Your task to perform on an android device: turn off javascript in the chrome app Image 0: 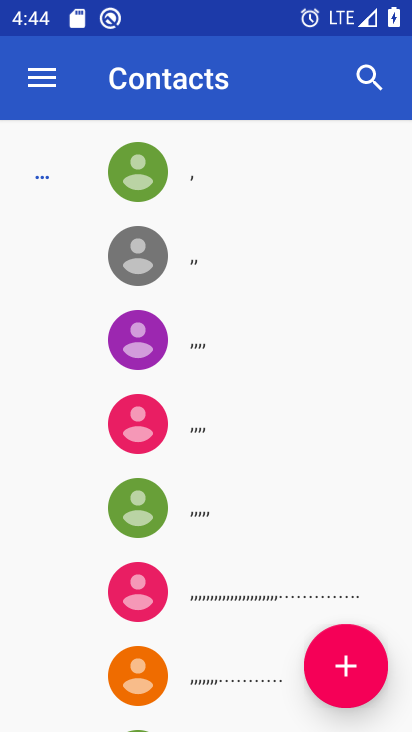
Step 0: press home button
Your task to perform on an android device: turn off javascript in the chrome app Image 1: 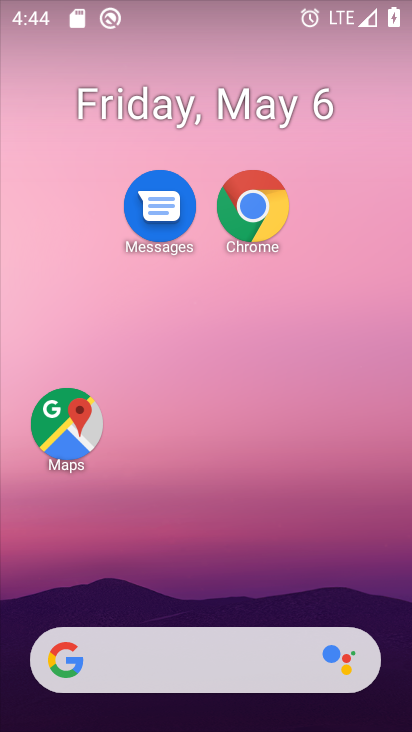
Step 1: click (253, 215)
Your task to perform on an android device: turn off javascript in the chrome app Image 2: 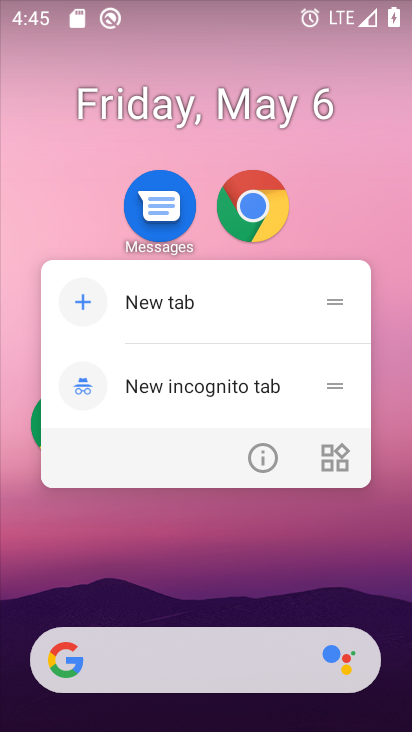
Step 2: click (252, 212)
Your task to perform on an android device: turn off javascript in the chrome app Image 3: 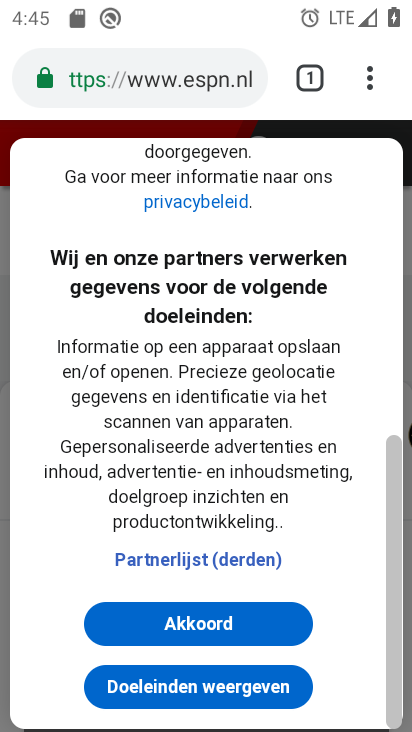
Step 3: click (370, 69)
Your task to perform on an android device: turn off javascript in the chrome app Image 4: 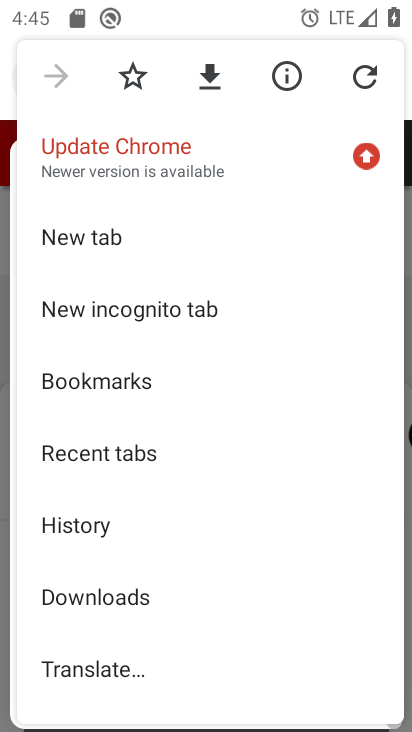
Step 4: drag from (121, 644) to (139, 301)
Your task to perform on an android device: turn off javascript in the chrome app Image 5: 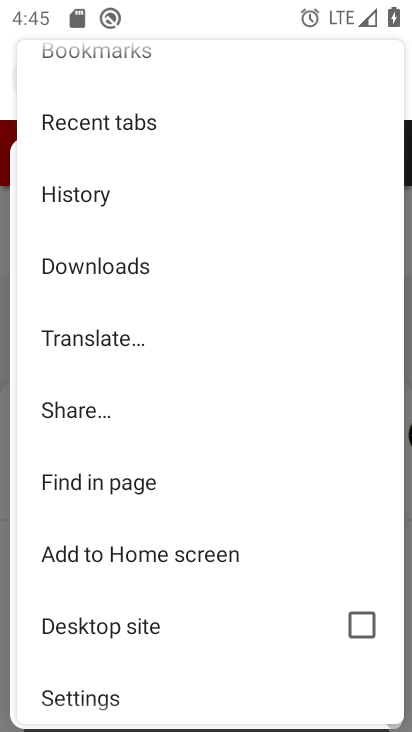
Step 5: click (108, 698)
Your task to perform on an android device: turn off javascript in the chrome app Image 6: 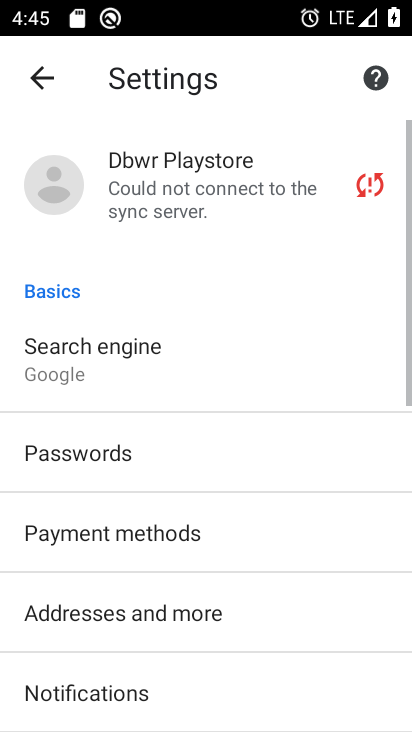
Step 6: drag from (126, 696) to (120, 330)
Your task to perform on an android device: turn off javascript in the chrome app Image 7: 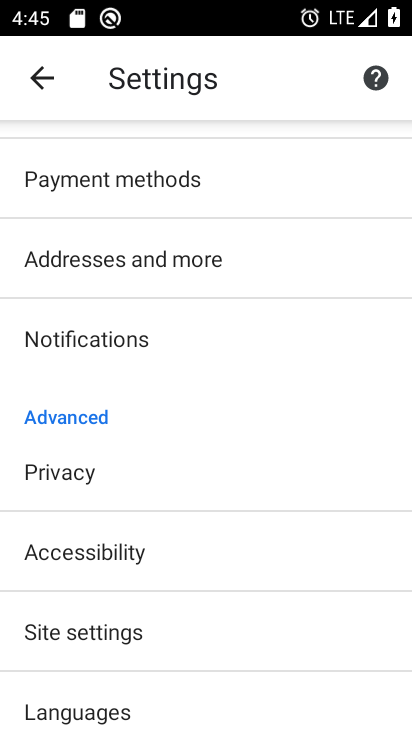
Step 7: drag from (125, 696) to (164, 347)
Your task to perform on an android device: turn off javascript in the chrome app Image 8: 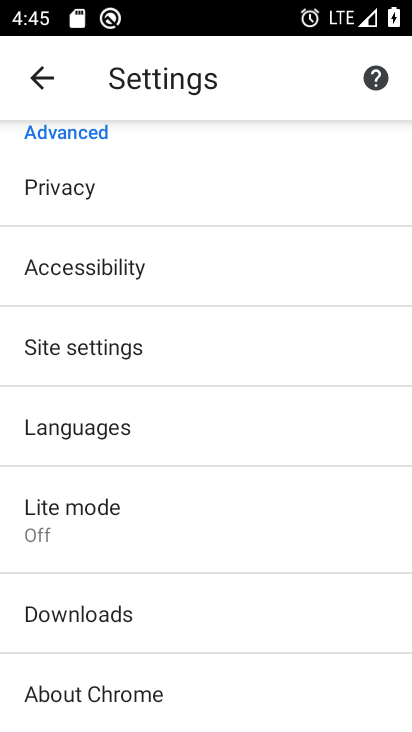
Step 8: click (110, 331)
Your task to perform on an android device: turn off javascript in the chrome app Image 9: 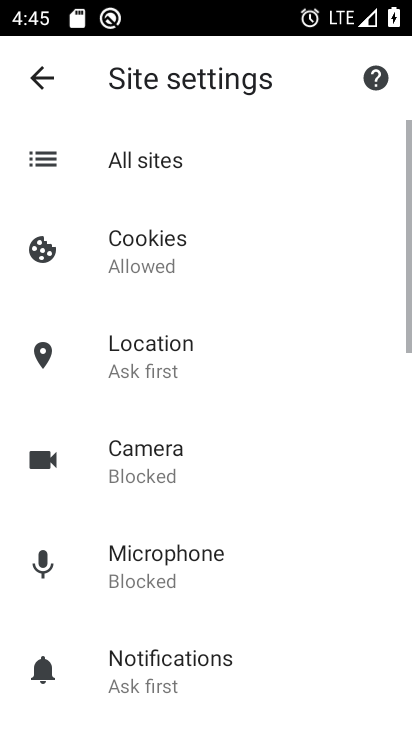
Step 9: drag from (158, 666) to (175, 276)
Your task to perform on an android device: turn off javascript in the chrome app Image 10: 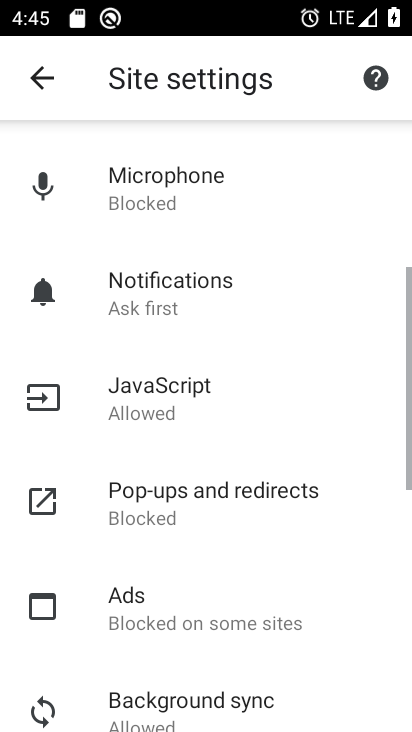
Step 10: click (176, 391)
Your task to perform on an android device: turn off javascript in the chrome app Image 11: 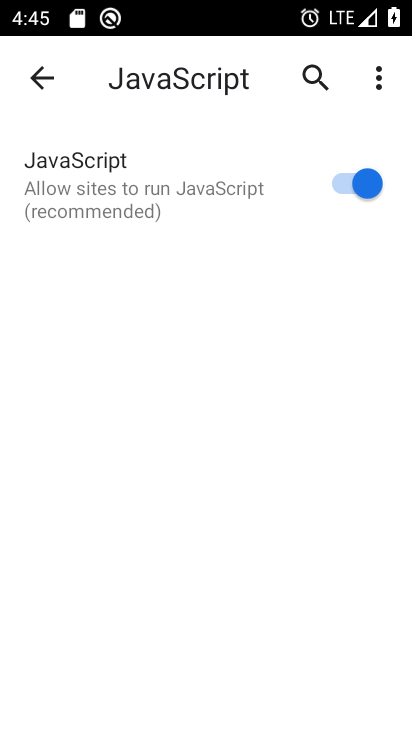
Step 11: click (341, 187)
Your task to perform on an android device: turn off javascript in the chrome app Image 12: 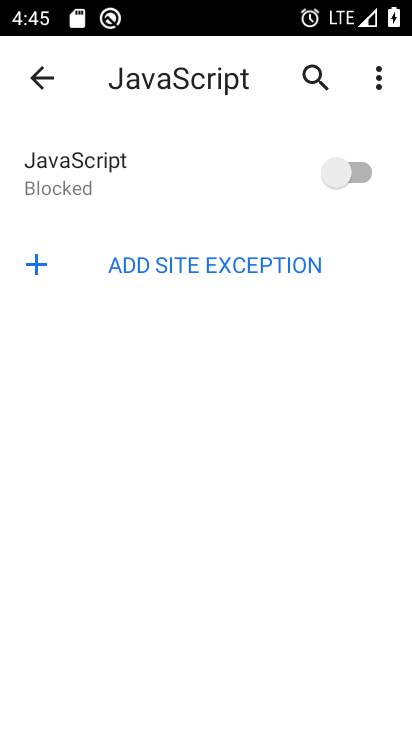
Step 12: task complete